Your task to perform on an android device: Open display settings Image 0: 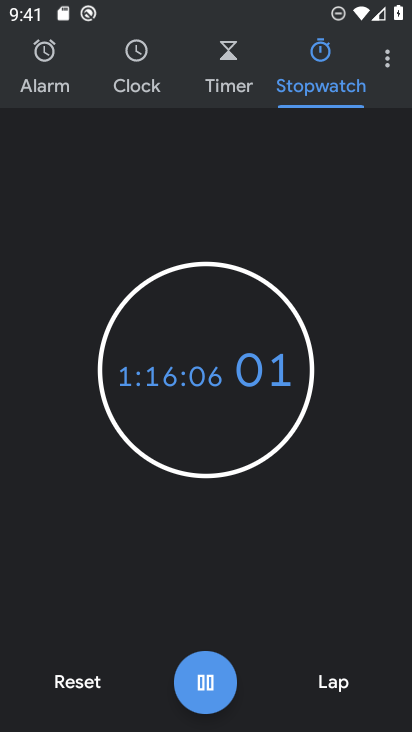
Step 0: press home button
Your task to perform on an android device: Open display settings Image 1: 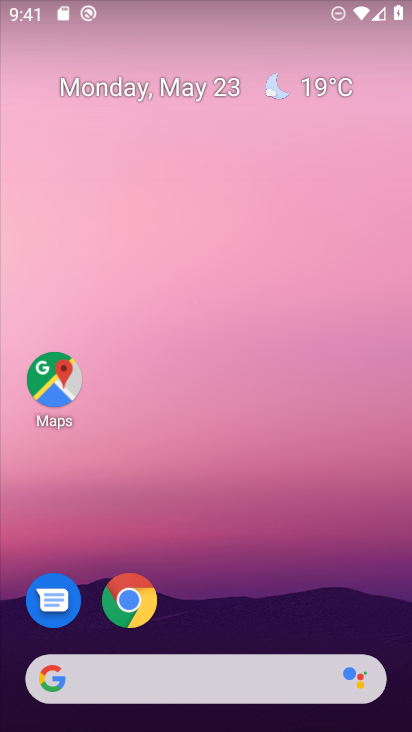
Step 1: drag from (89, 361) to (178, 154)
Your task to perform on an android device: Open display settings Image 2: 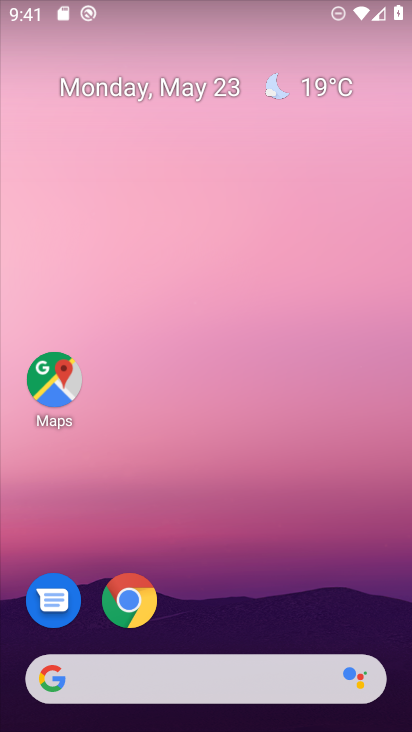
Step 2: drag from (68, 486) to (212, 104)
Your task to perform on an android device: Open display settings Image 3: 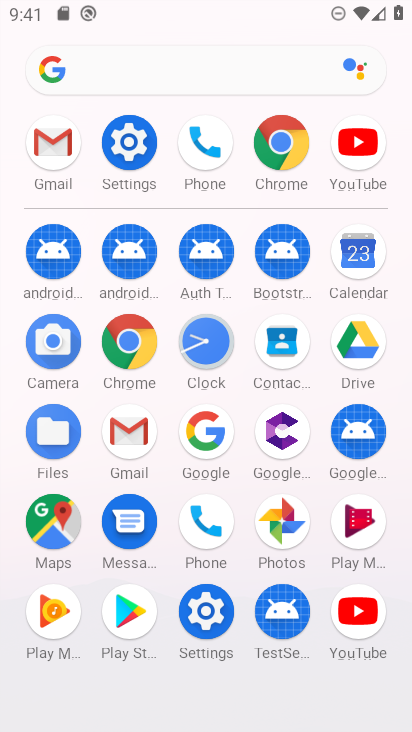
Step 3: click (135, 149)
Your task to perform on an android device: Open display settings Image 4: 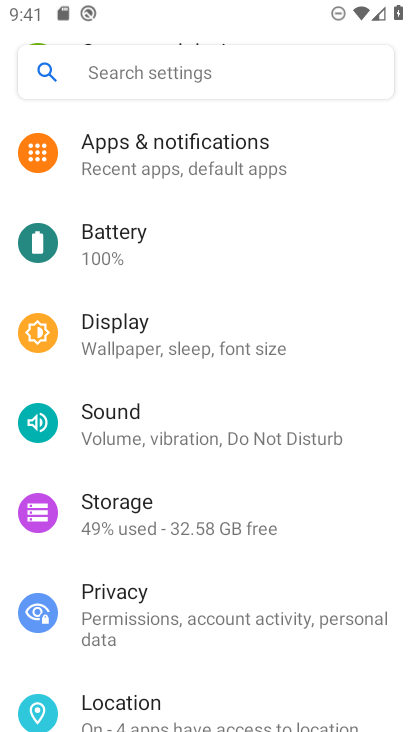
Step 4: click (218, 339)
Your task to perform on an android device: Open display settings Image 5: 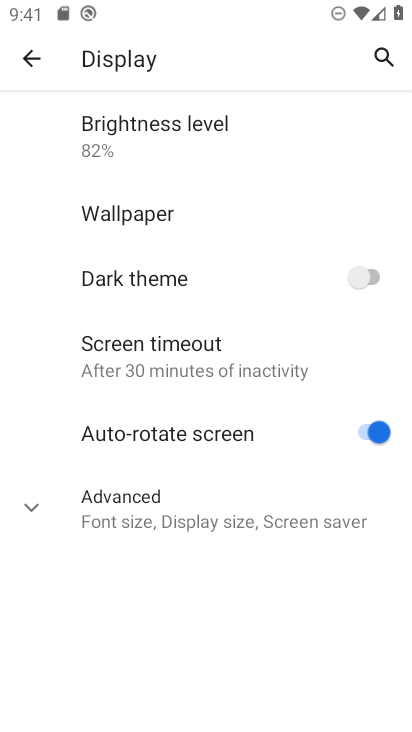
Step 5: task complete